Your task to perform on an android device: check google app version Image 0: 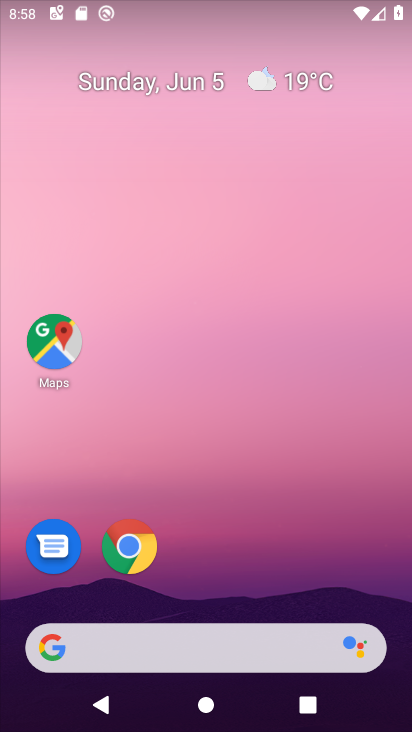
Step 0: drag from (248, 609) to (243, 0)
Your task to perform on an android device: check google app version Image 1: 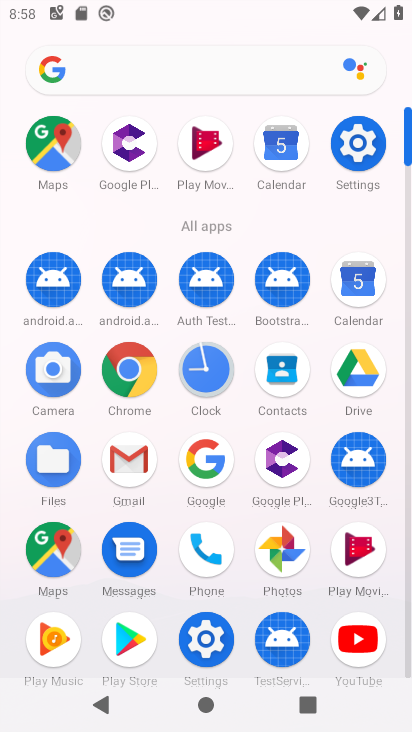
Step 1: click (220, 476)
Your task to perform on an android device: check google app version Image 2: 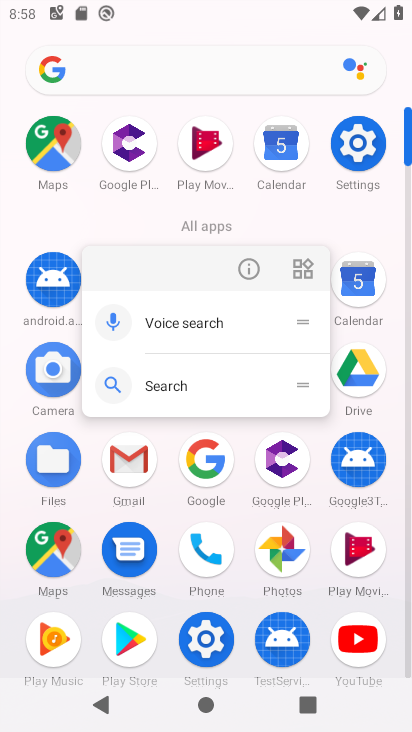
Step 2: click (237, 272)
Your task to perform on an android device: check google app version Image 3: 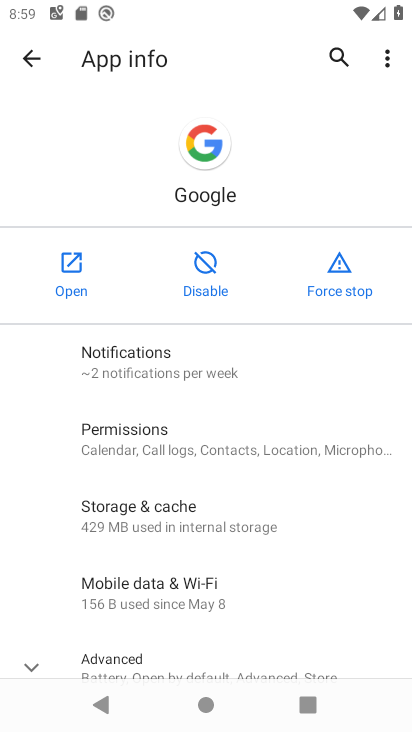
Step 3: drag from (208, 579) to (260, 3)
Your task to perform on an android device: check google app version Image 4: 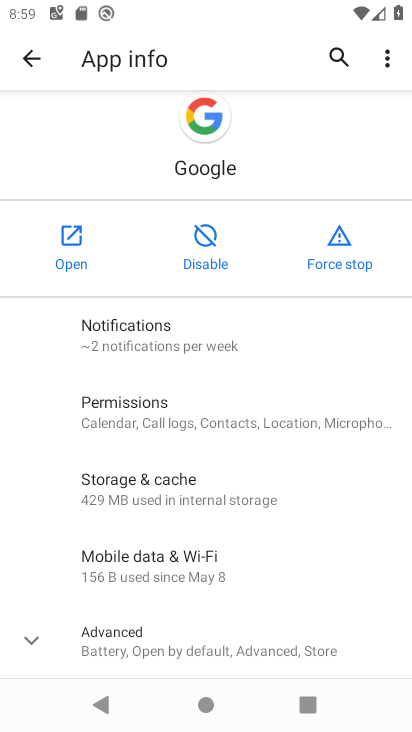
Step 4: click (106, 660)
Your task to perform on an android device: check google app version Image 5: 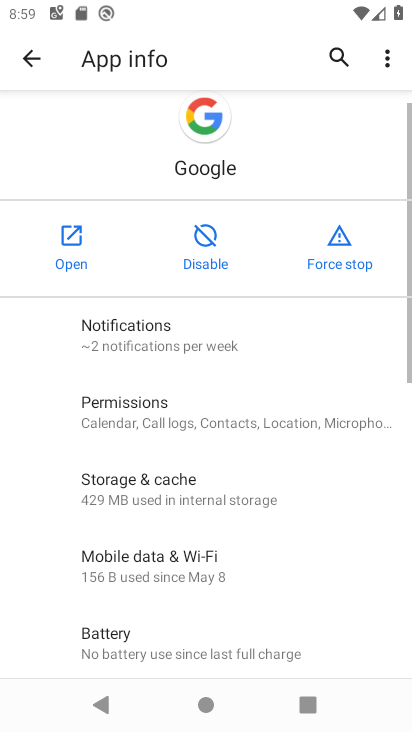
Step 5: drag from (175, 629) to (165, 318)
Your task to perform on an android device: check google app version Image 6: 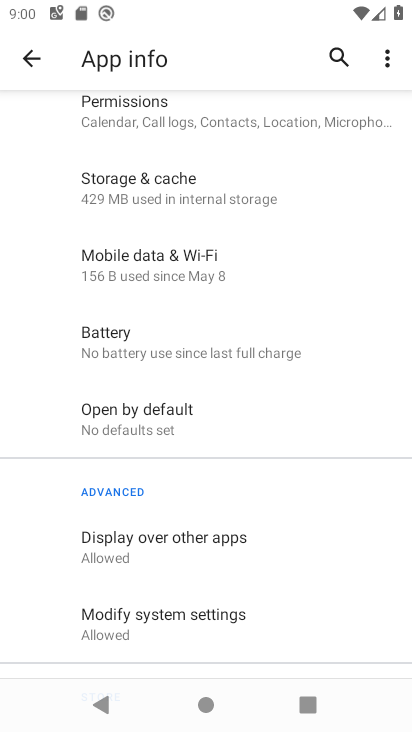
Step 6: drag from (167, 616) to (202, 435)
Your task to perform on an android device: check google app version Image 7: 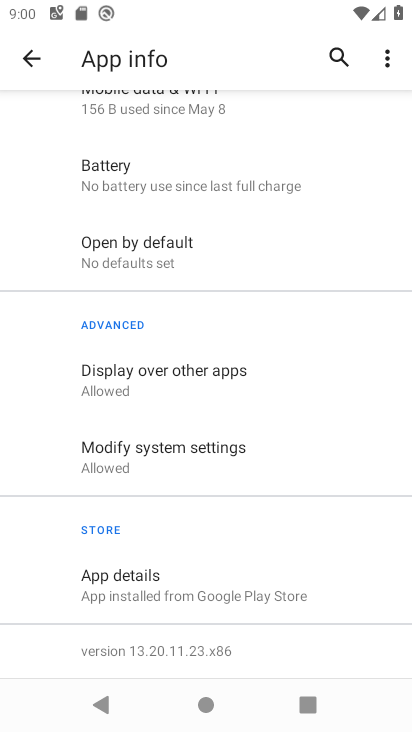
Step 7: click (197, 598)
Your task to perform on an android device: check google app version Image 8: 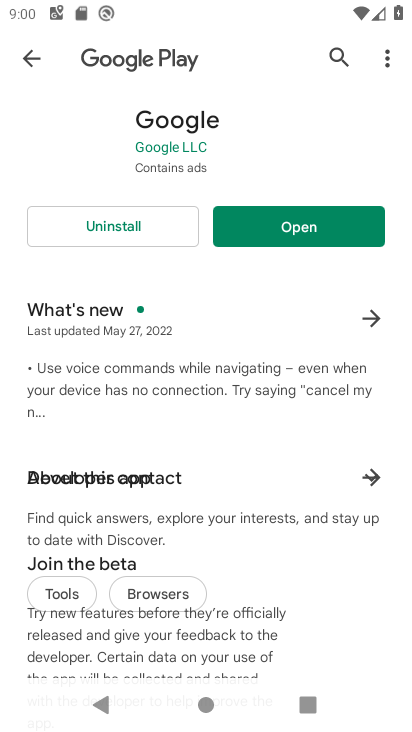
Step 8: task complete